Your task to perform on an android device: toggle sleep mode Image 0: 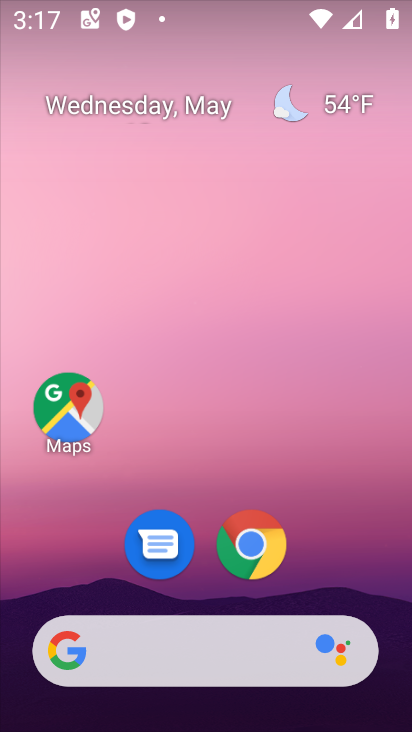
Step 0: drag from (338, 548) to (340, 129)
Your task to perform on an android device: toggle sleep mode Image 1: 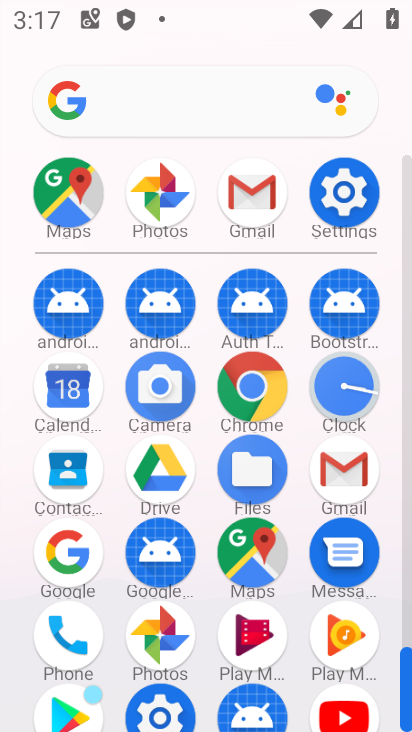
Step 1: click (331, 196)
Your task to perform on an android device: toggle sleep mode Image 2: 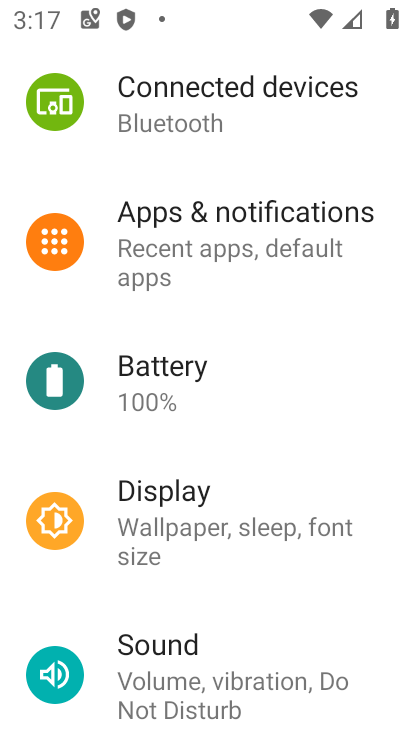
Step 2: click (245, 570)
Your task to perform on an android device: toggle sleep mode Image 3: 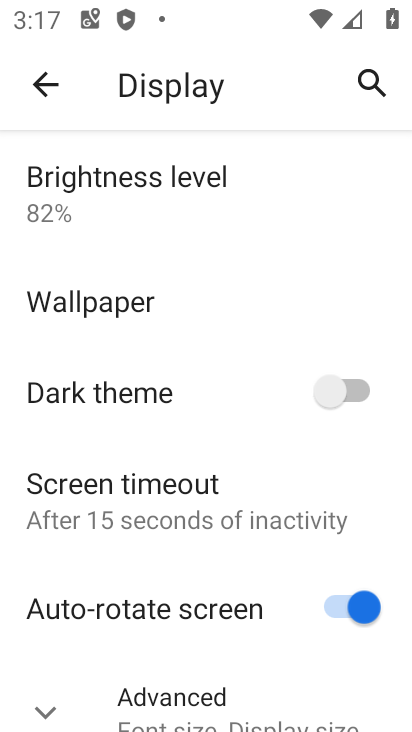
Step 3: click (245, 536)
Your task to perform on an android device: toggle sleep mode Image 4: 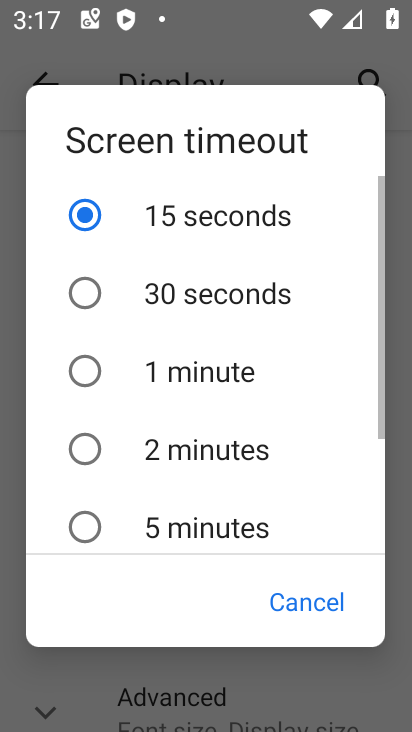
Step 4: click (255, 295)
Your task to perform on an android device: toggle sleep mode Image 5: 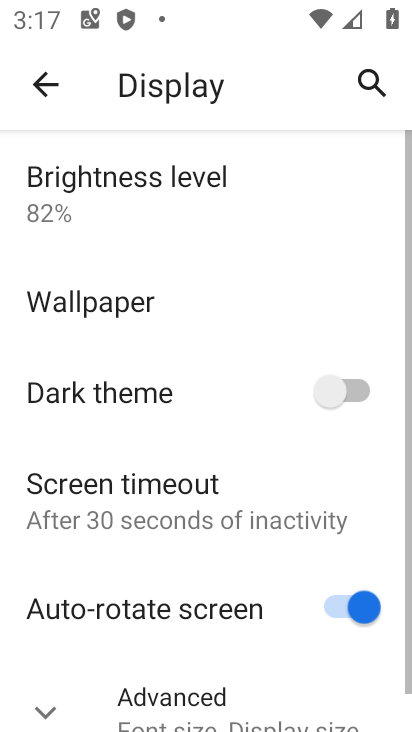
Step 5: task complete